Your task to perform on an android device: What is the recent news? Image 0: 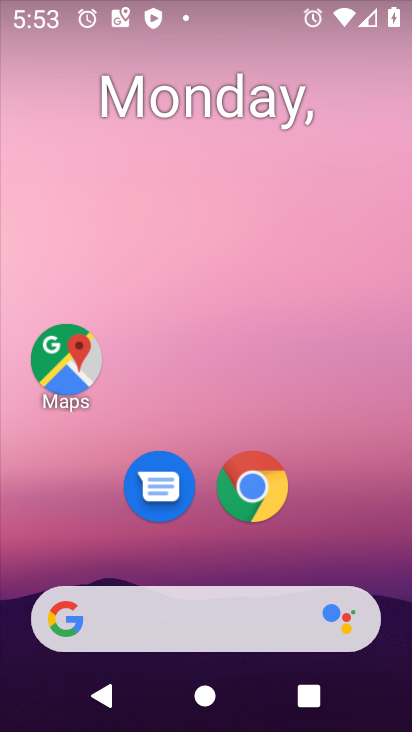
Step 0: press home button
Your task to perform on an android device: What is the recent news? Image 1: 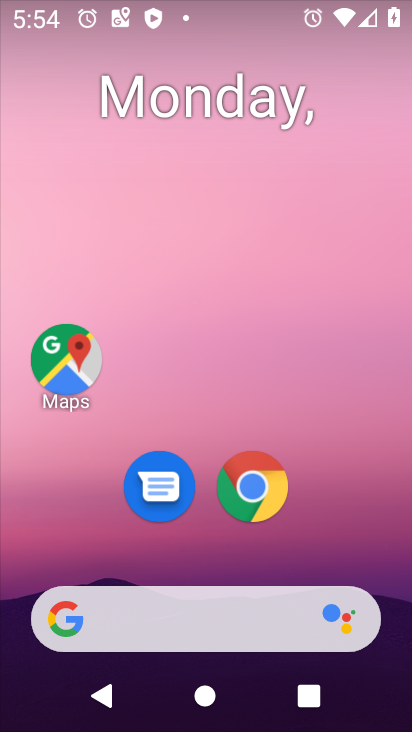
Step 1: click (243, 503)
Your task to perform on an android device: What is the recent news? Image 2: 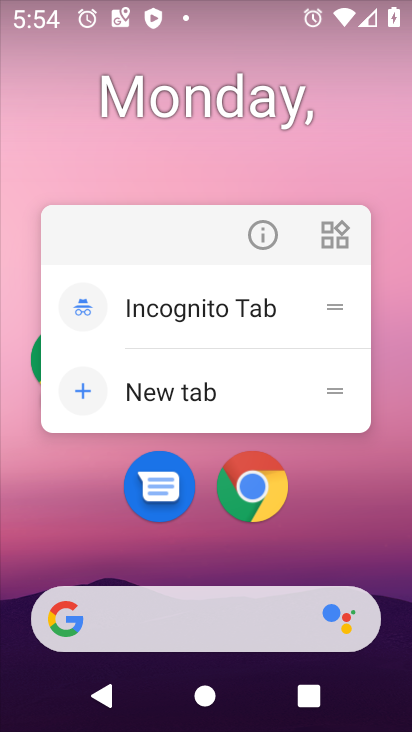
Step 2: click (239, 496)
Your task to perform on an android device: What is the recent news? Image 3: 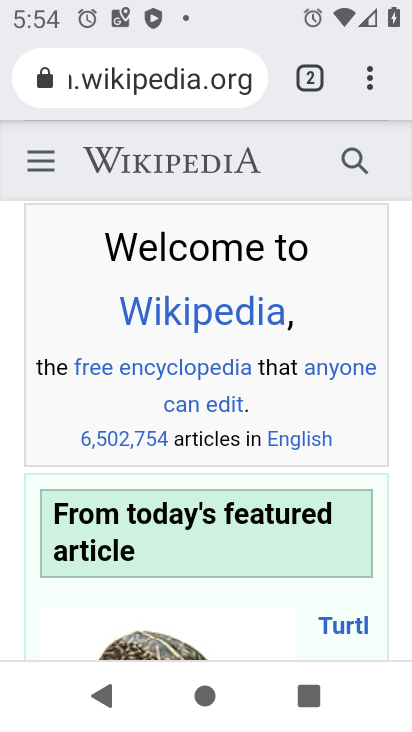
Step 3: task complete